Your task to perform on an android device: stop showing notifications on the lock screen Image 0: 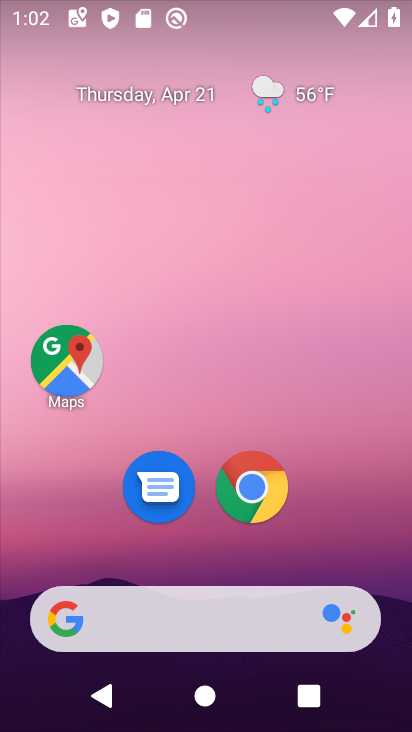
Step 0: drag from (391, 505) to (362, 62)
Your task to perform on an android device: stop showing notifications on the lock screen Image 1: 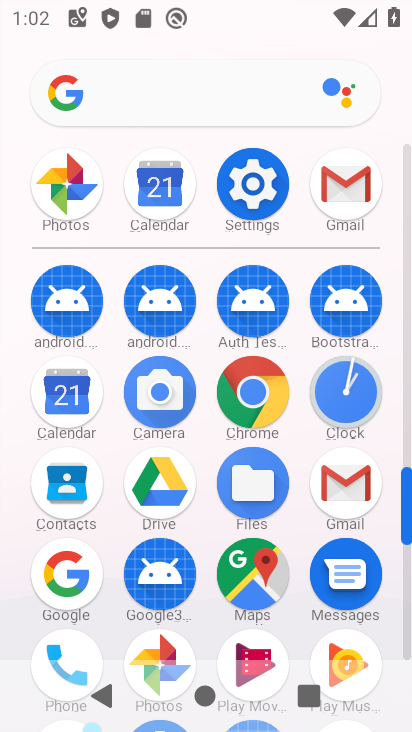
Step 1: click (251, 187)
Your task to perform on an android device: stop showing notifications on the lock screen Image 2: 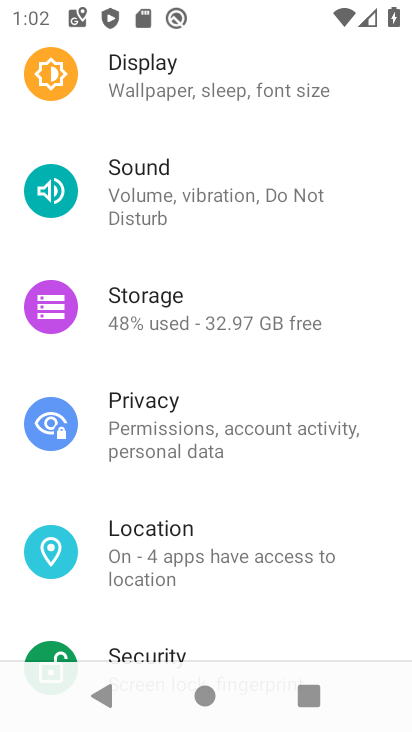
Step 2: drag from (331, 193) to (304, 523)
Your task to perform on an android device: stop showing notifications on the lock screen Image 3: 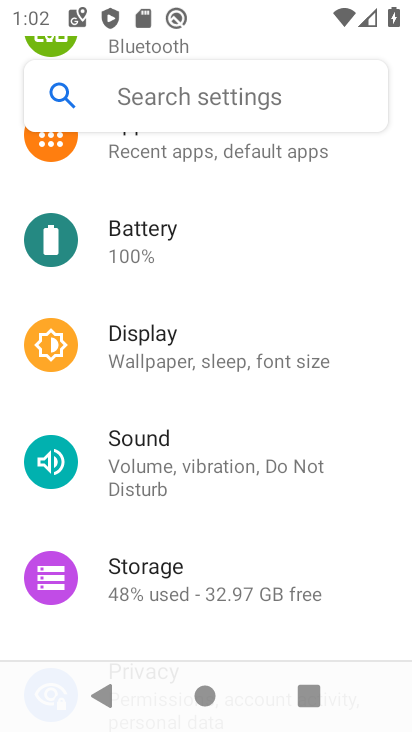
Step 3: drag from (339, 197) to (318, 470)
Your task to perform on an android device: stop showing notifications on the lock screen Image 4: 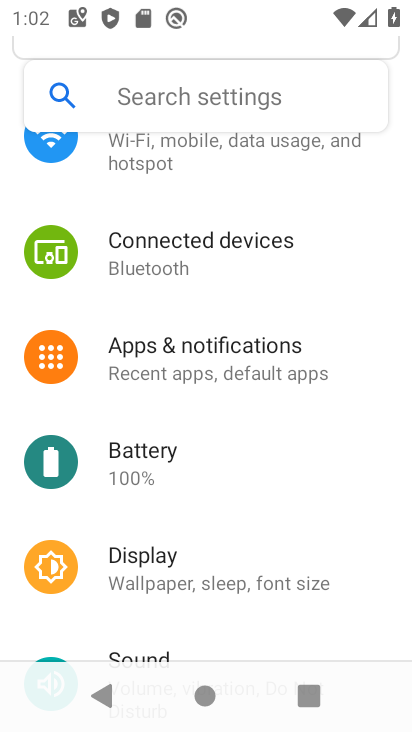
Step 4: click (207, 363)
Your task to perform on an android device: stop showing notifications on the lock screen Image 5: 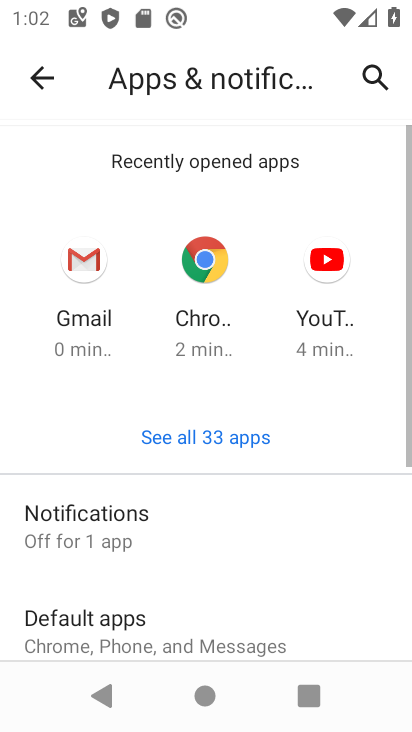
Step 5: drag from (222, 515) to (230, 168)
Your task to perform on an android device: stop showing notifications on the lock screen Image 6: 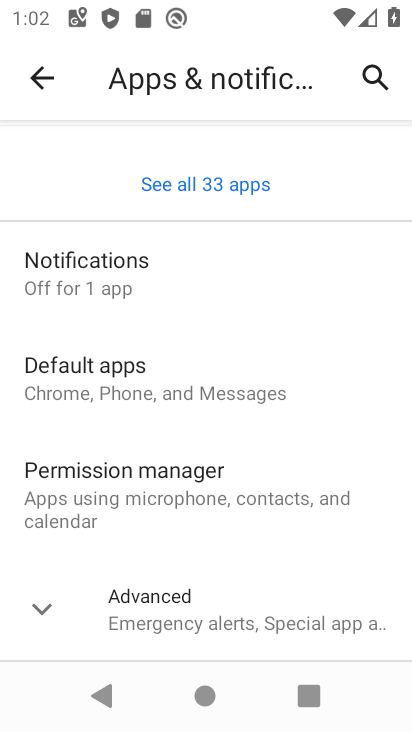
Step 6: click (97, 281)
Your task to perform on an android device: stop showing notifications on the lock screen Image 7: 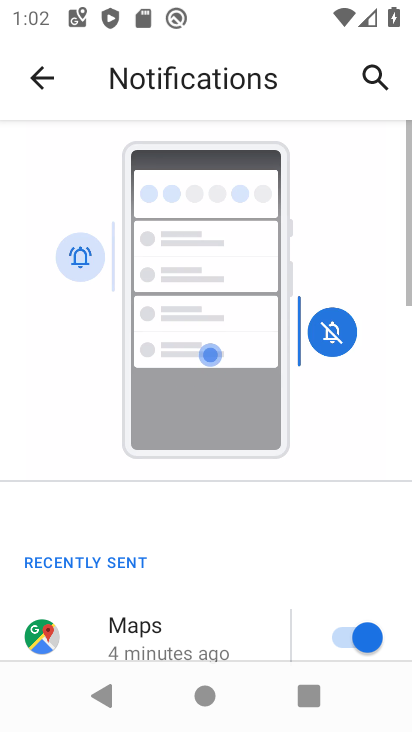
Step 7: drag from (204, 530) to (208, 97)
Your task to perform on an android device: stop showing notifications on the lock screen Image 8: 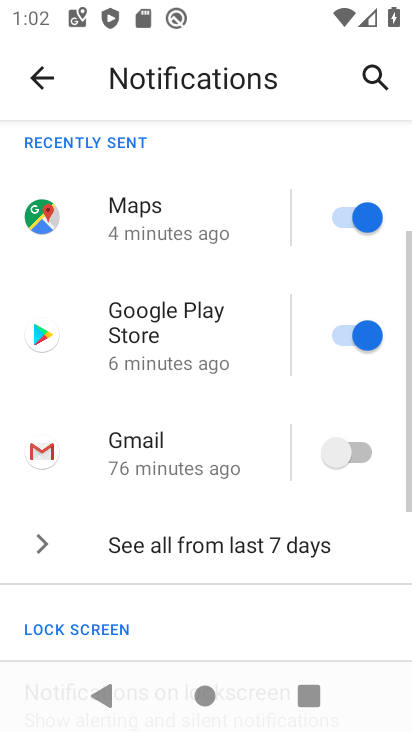
Step 8: drag from (194, 518) to (205, 155)
Your task to perform on an android device: stop showing notifications on the lock screen Image 9: 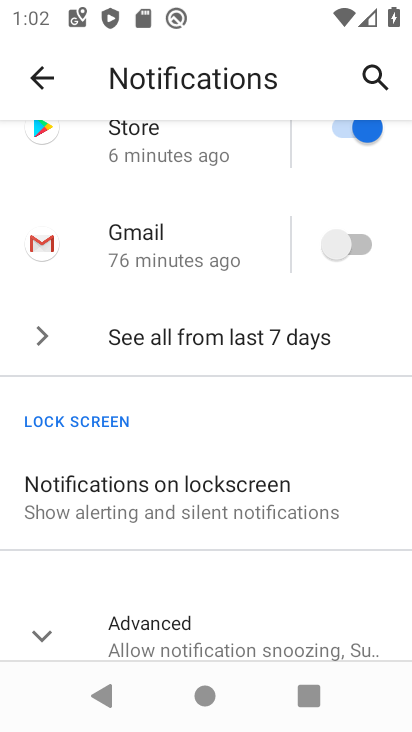
Step 9: click (121, 496)
Your task to perform on an android device: stop showing notifications on the lock screen Image 10: 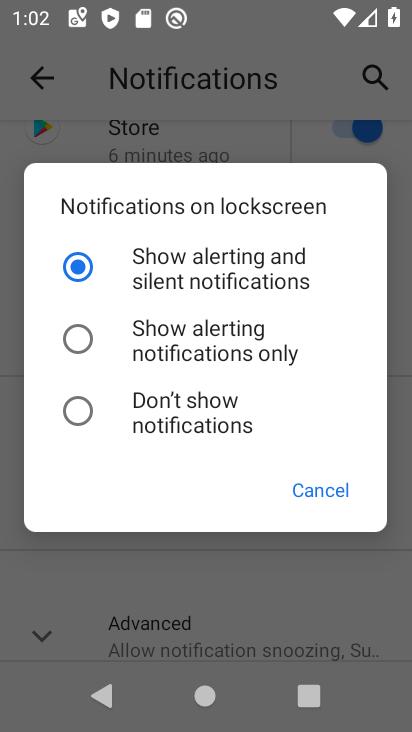
Step 10: click (75, 425)
Your task to perform on an android device: stop showing notifications on the lock screen Image 11: 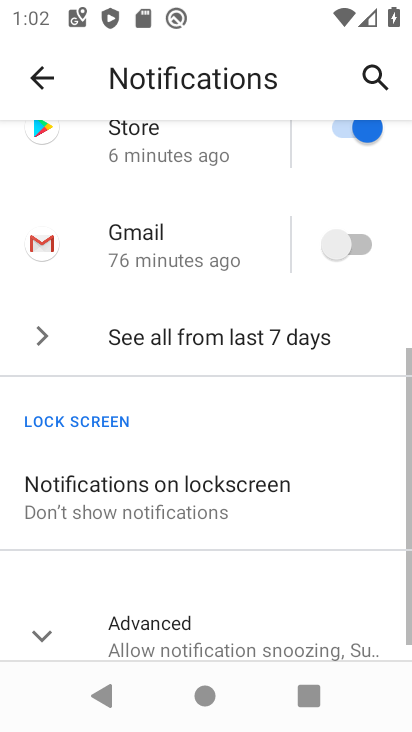
Step 11: task complete